Your task to perform on an android device: turn off wifi Image 0: 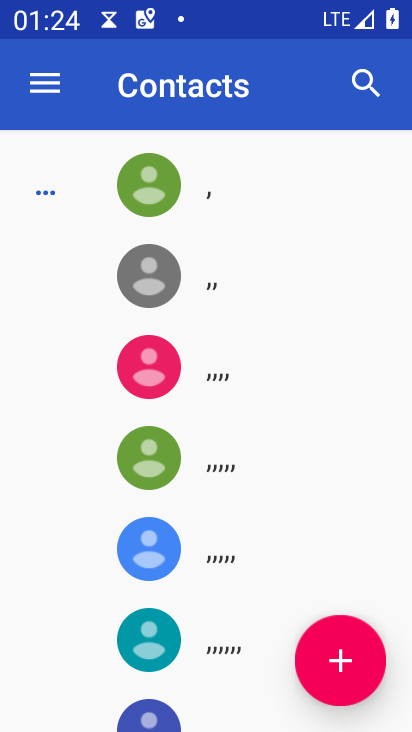
Step 0: press home button
Your task to perform on an android device: turn off wifi Image 1: 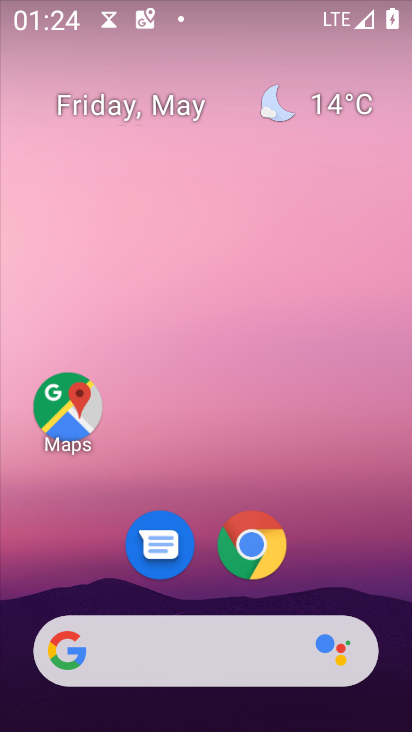
Step 1: drag from (295, 576) to (244, 123)
Your task to perform on an android device: turn off wifi Image 2: 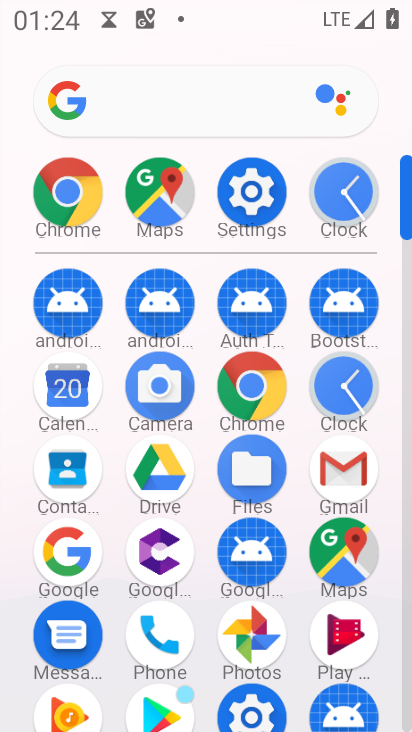
Step 2: click (245, 198)
Your task to perform on an android device: turn off wifi Image 3: 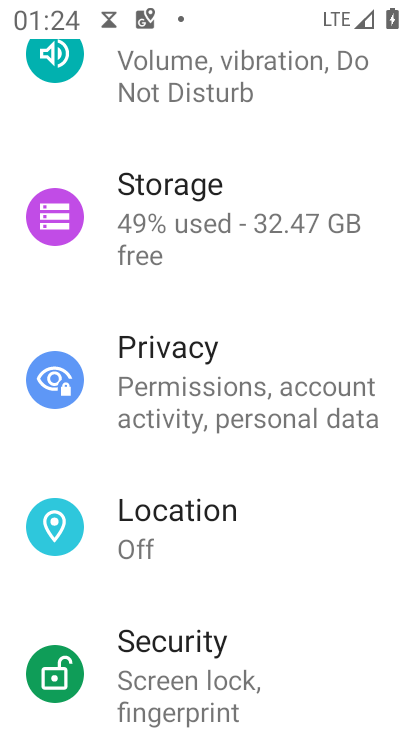
Step 3: drag from (245, 173) to (215, 515)
Your task to perform on an android device: turn off wifi Image 4: 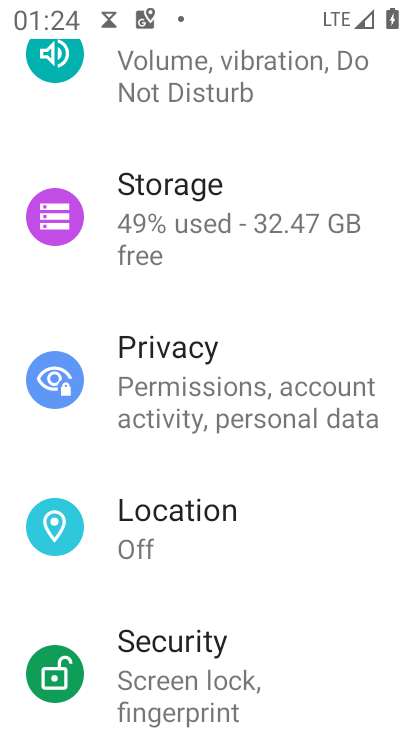
Step 4: click (238, 515)
Your task to perform on an android device: turn off wifi Image 5: 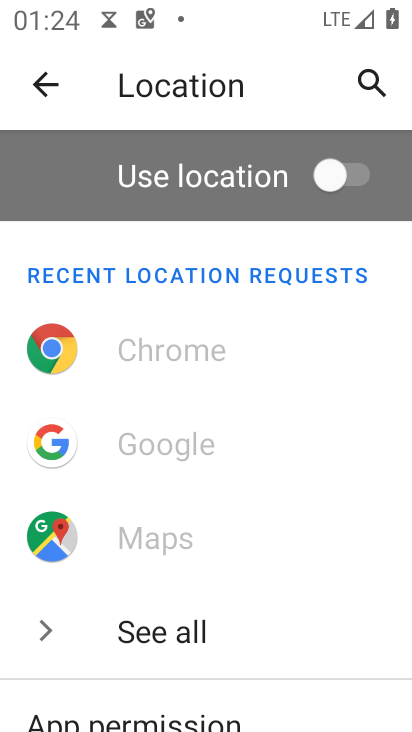
Step 5: click (36, 86)
Your task to perform on an android device: turn off wifi Image 6: 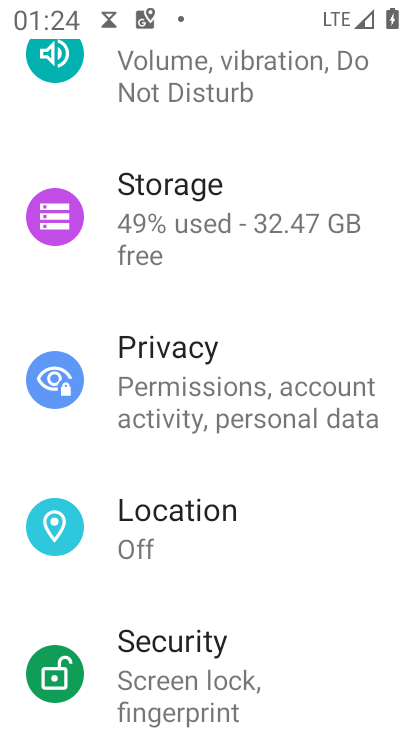
Step 6: drag from (174, 133) to (184, 603)
Your task to perform on an android device: turn off wifi Image 7: 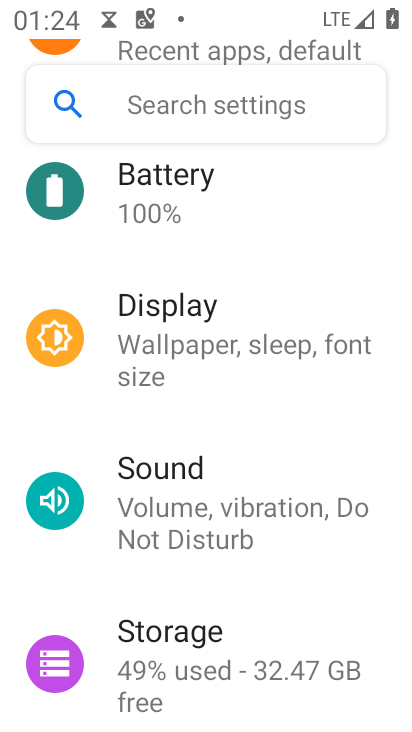
Step 7: drag from (201, 574) to (201, 620)
Your task to perform on an android device: turn off wifi Image 8: 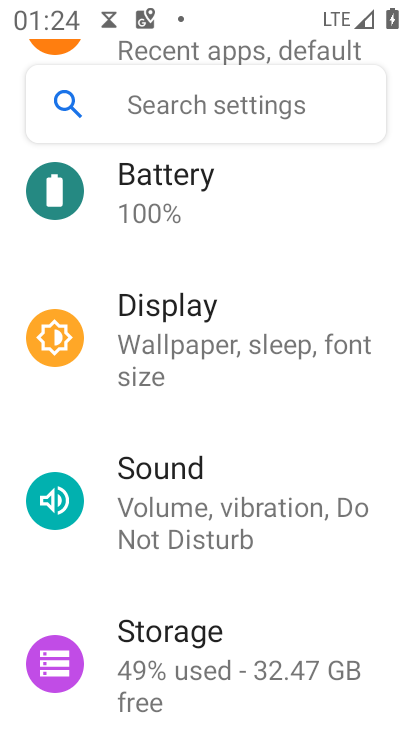
Step 8: drag from (237, 286) to (231, 513)
Your task to perform on an android device: turn off wifi Image 9: 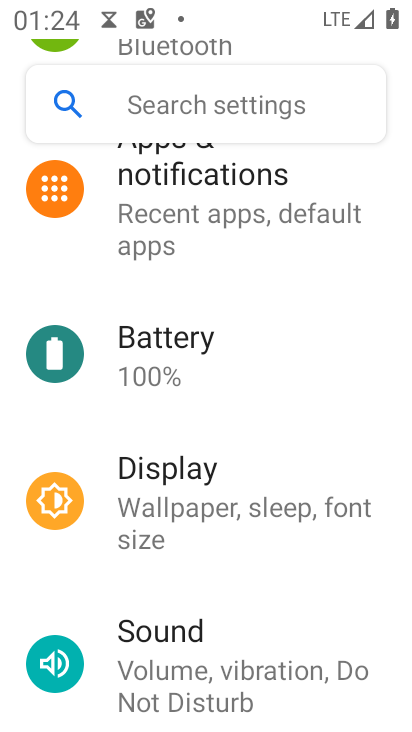
Step 9: drag from (259, 291) to (244, 622)
Your task to perform on an android device: turn off wifi Image 10: 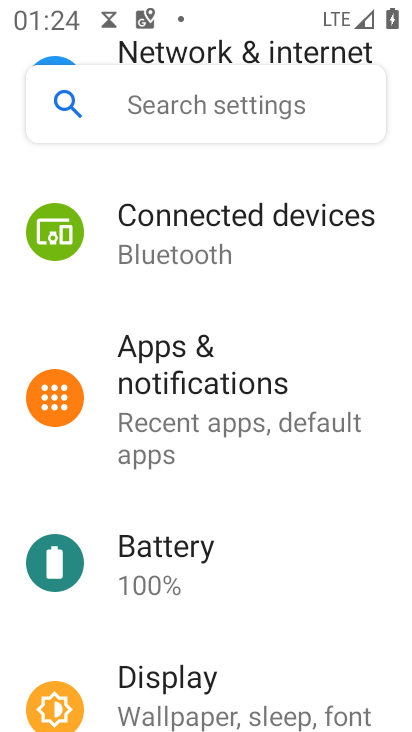
Step 10: click (240, 650)
Your task to perform on an android device: turn off wifi Image 11: 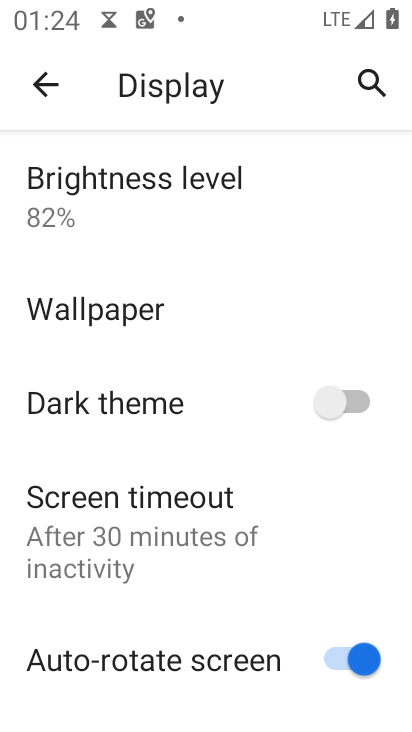
Step 11: click (33, 81)
Your task to perform on an android device: turn off wifi Image 12: 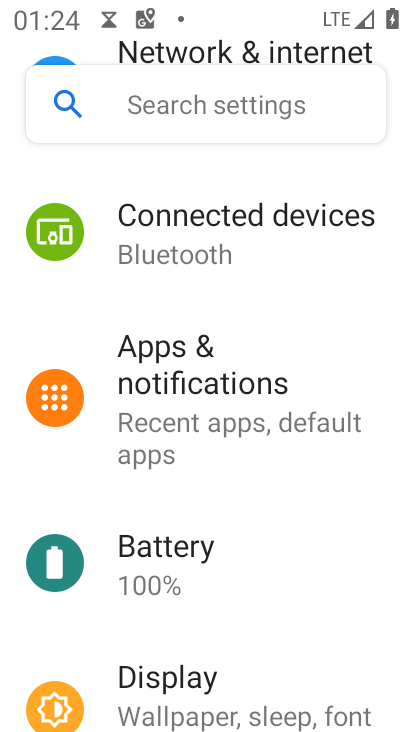
Step 12: drag from (193, 233) to (193, 572)
Your task to perform on an android device: turn off wifi Image 13: 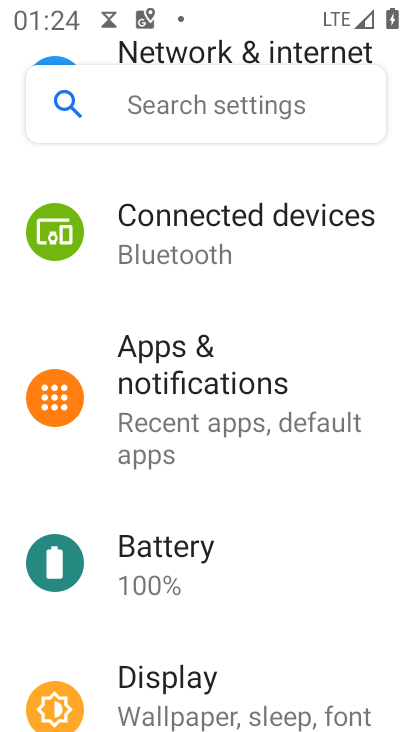
Step 13: drag from (157, 218) to (180, 468)
Your task to perform on an android device: turn off wifi Image 14: 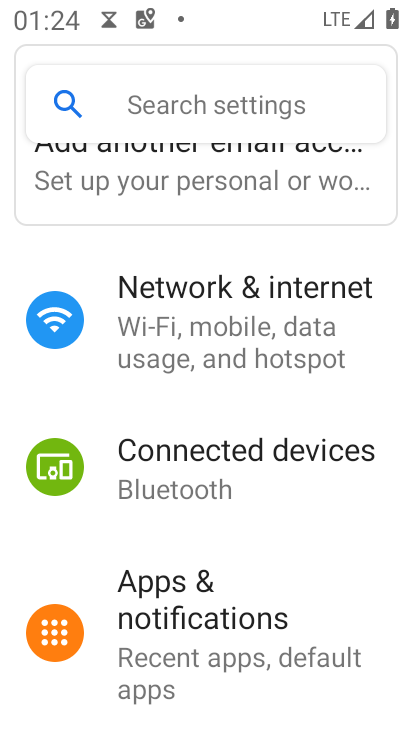
Step 14: click (219, 313)
Your task to perform on an android device: turn off wifi Image 15: 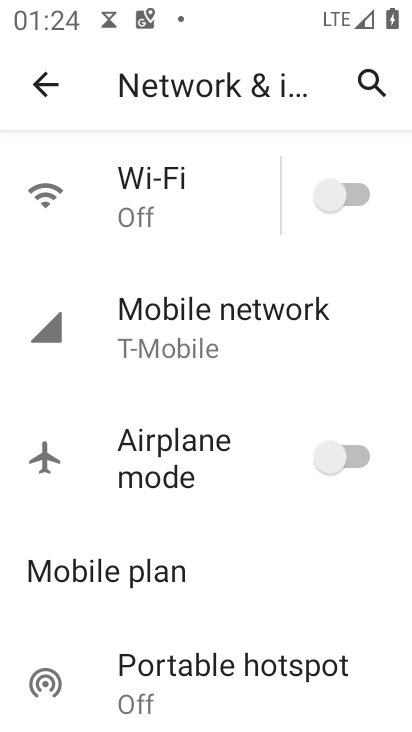
Step 15: task complete